Your task to perform on an android device: check data usage Image 0: 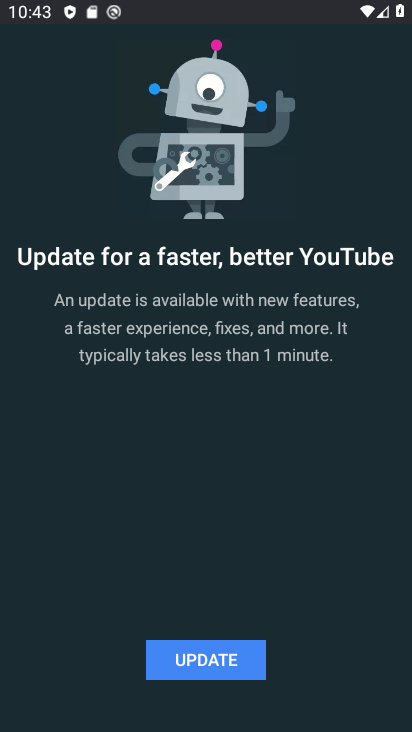
Step 0: press home button
Your task to perform on an android device: check data usage Image 1: 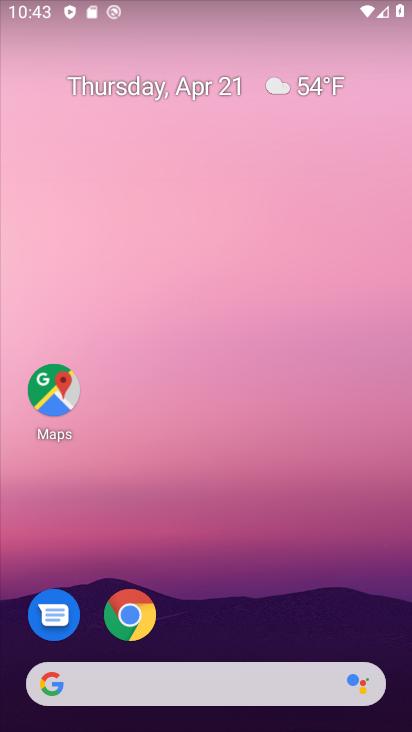
Step 1: drag from (211, 627) to (205, 56)
Your task to perform on an android device: check data usage Image 2: 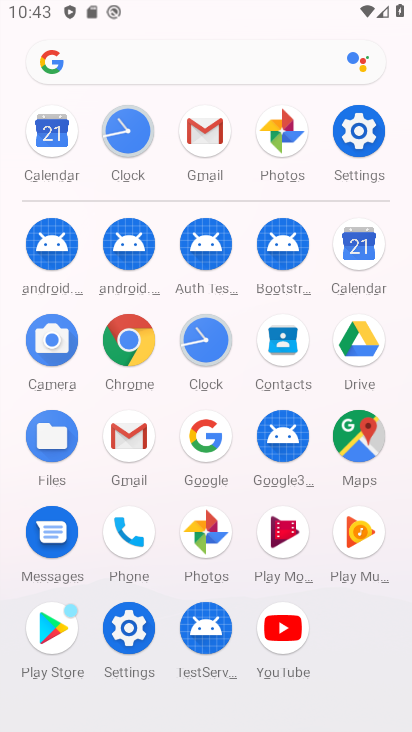
Step 2: click (128, 639)
Your task to perform on an android device: check data usage Image 3: 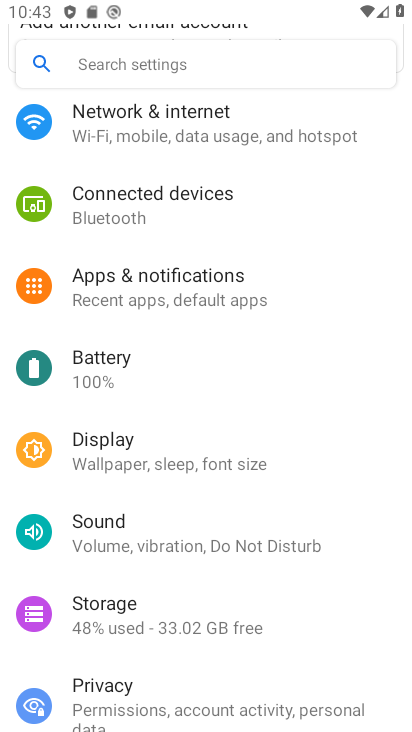
Step 3: click (192, 133)
Your task to perform on an android device: check data usage Image 4: 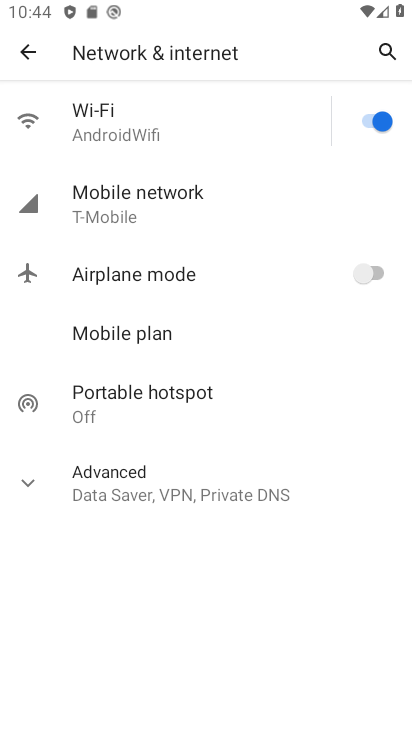
Step 4: click (164, 198)
Your task to perform on an android device: check data usage Image 5: 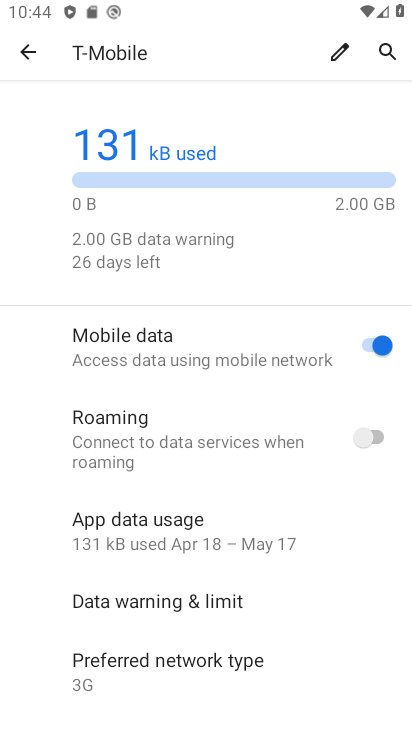
Step 5: click (152, 535)
Your task to perform on an android device: check data usage Image 6: 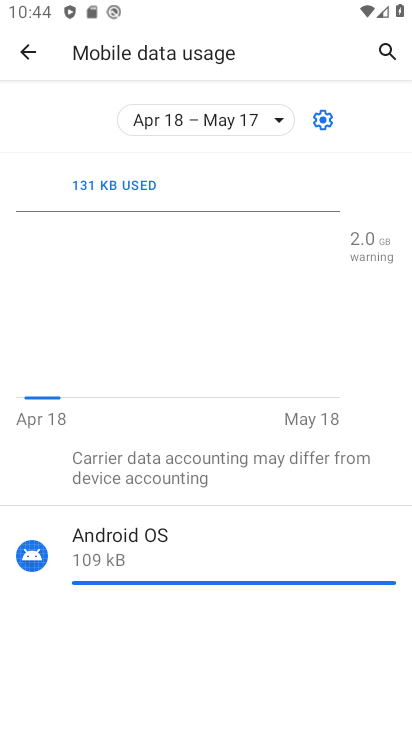
Step 6: task complete